Your task to perform on an android device: Do I have any events this weekend? Image 0: 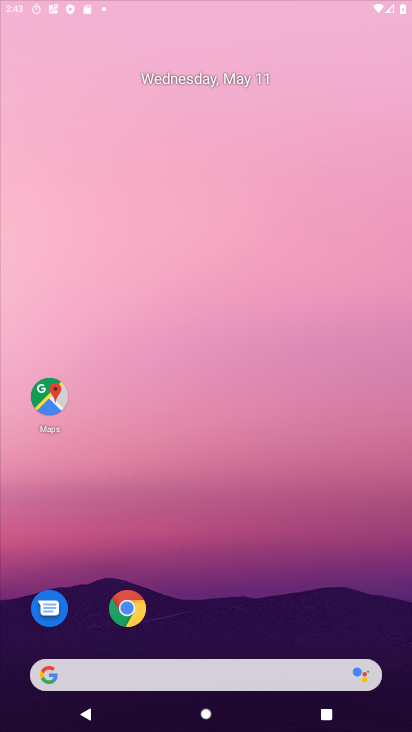
Step 0: press home button
Your task to perform on an android device: Do I have any events this weekend? Image 1: 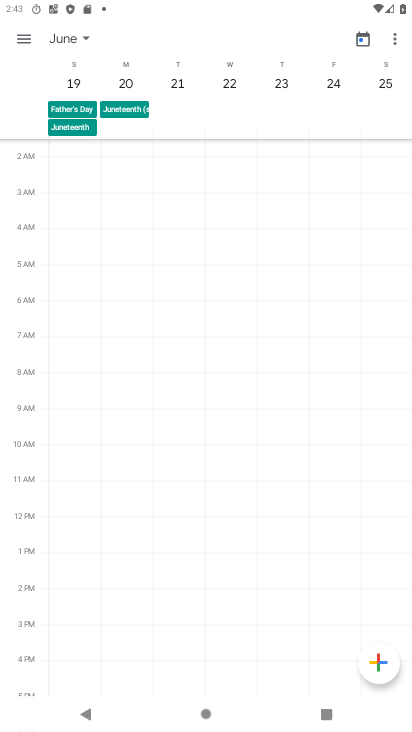
Step 1: drag from (221, 616) to (305, 4)
Your task to perform on an android device: Do I have any events this weekend? Image 2: 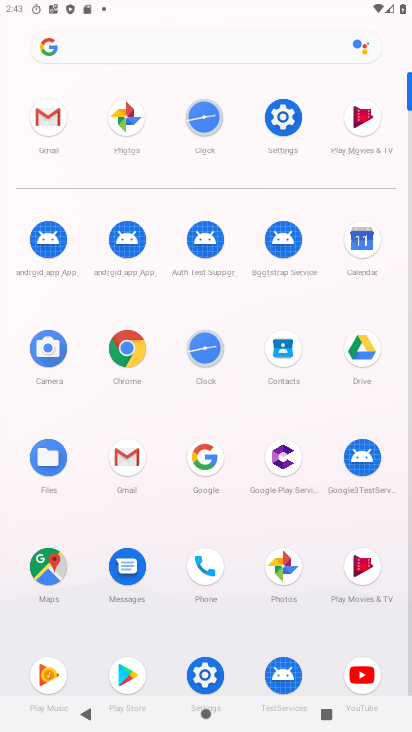
Step 2: click (279, 124)
Your task to perform on an android device: Do I have any events this weekend? Image 3: 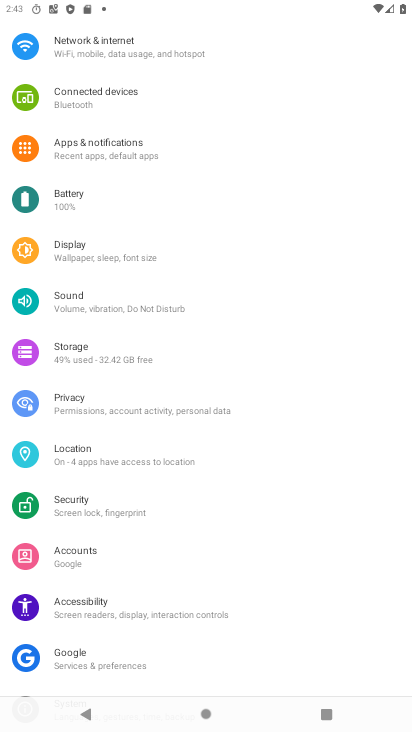
Step 3: drag from (242, 80) to (163, 511)
Your task to perform on an android device: Do I have any events this weekend? Image 4: 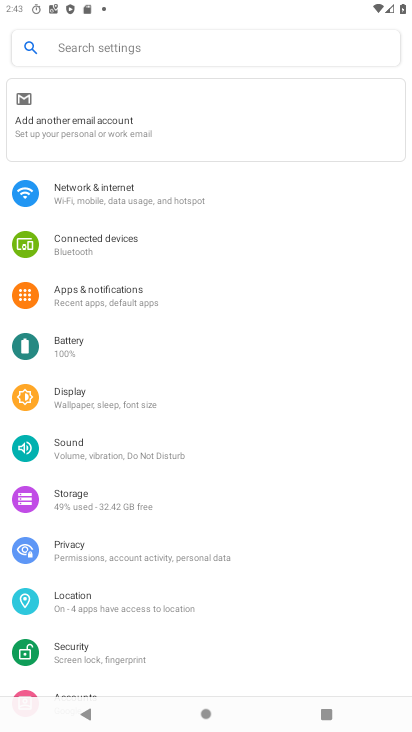
Step 4: drag from (195, 596) to (285, 156)
Your task to perform on an android device: Do I have any events this weekend? Image 5: 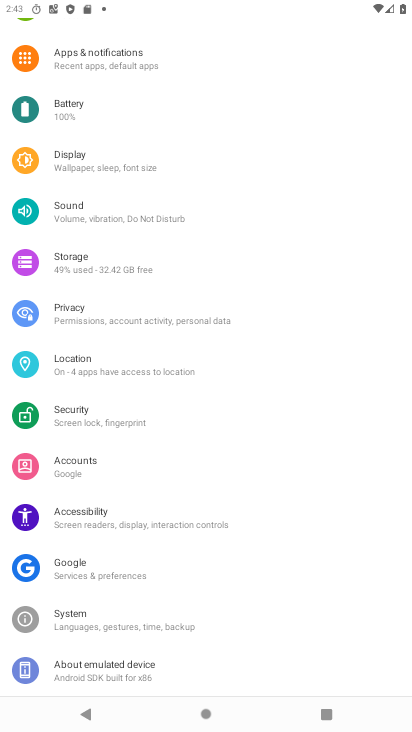
Step 5: drag from (237, 531) to (259, 185)
Your task to perform on an android device: Do I have any events this weekend? Image 6: 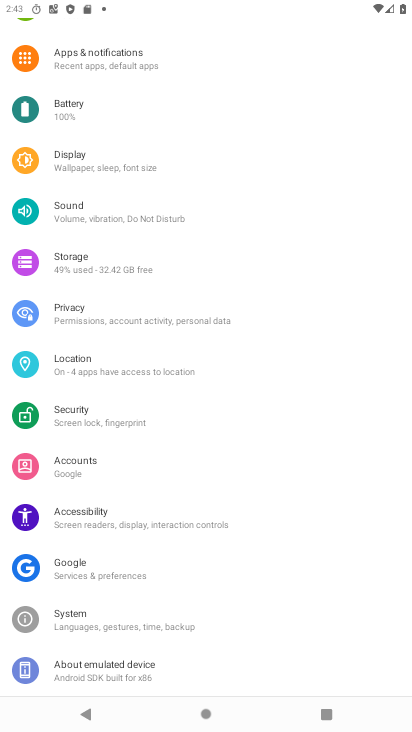
Step 6: drag from (303, 195) to (196, 599)
Your task to perform on an android device: Do I have any events this weekend? Image 7: 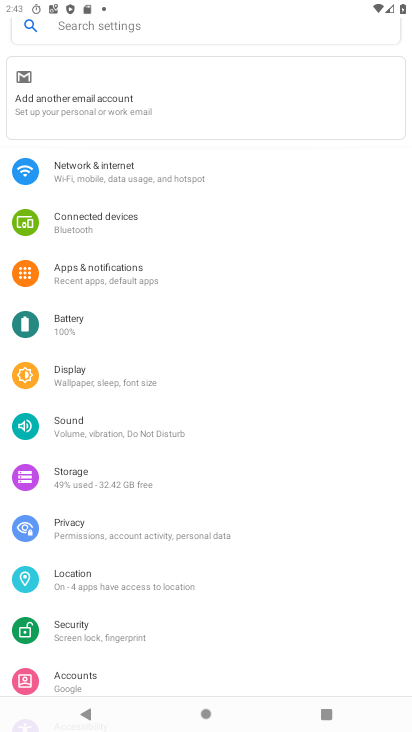
Step 7: drag from (302, 158) to (229, 536)
Your task to perform on an android device: Do I have any events this weekend? Image 8: 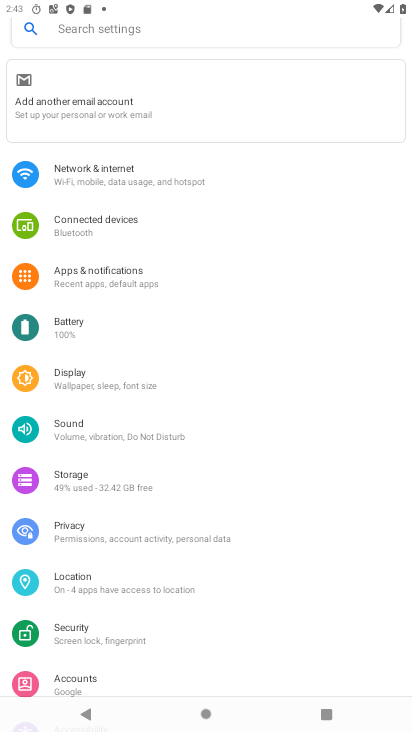
Step 8: click (253, 174)
Your task to perform on an android device: Do I have any events this weekend? Image 9: 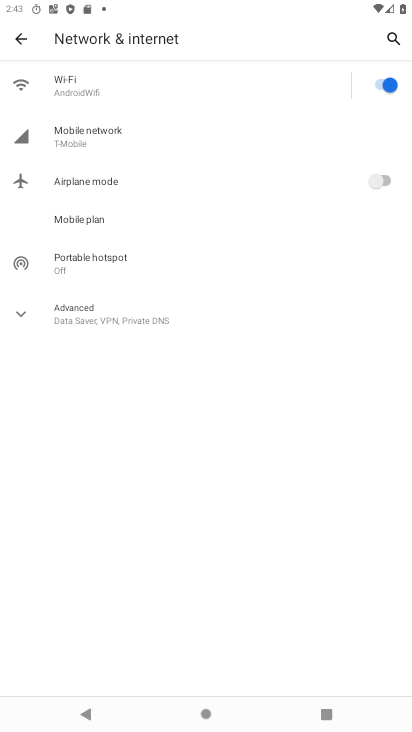
Step 9: task complete